Your task to perform on an android device: What's the weather? Image 0: 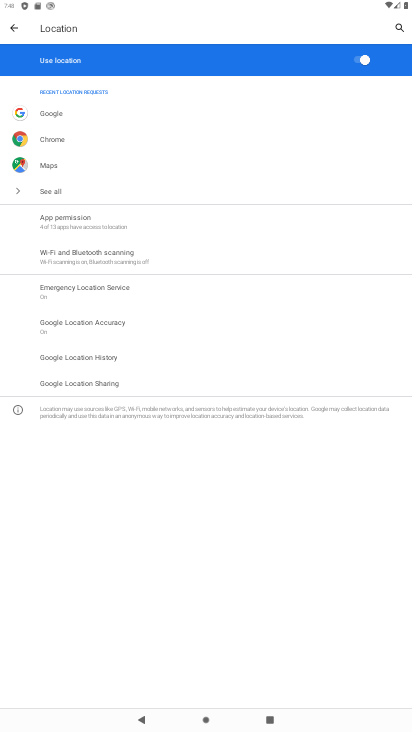
Step 0: press home button
Your task to perform on an android device: What's the weather? Image 1: 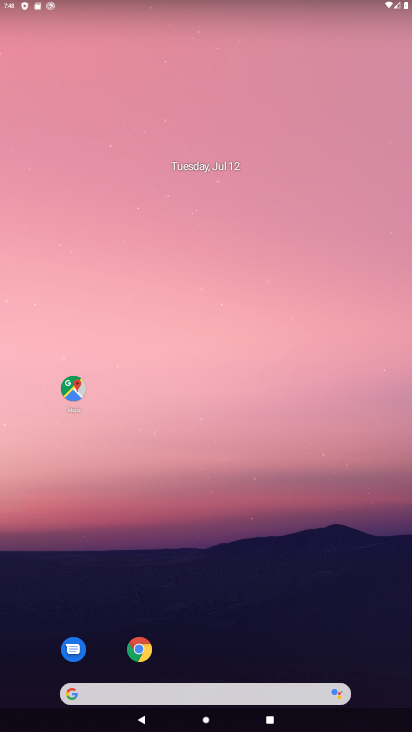
Step 1: drag from (242, 622) to (226, 84)
Your task to perform on an android device: What's the weather? Image 2: 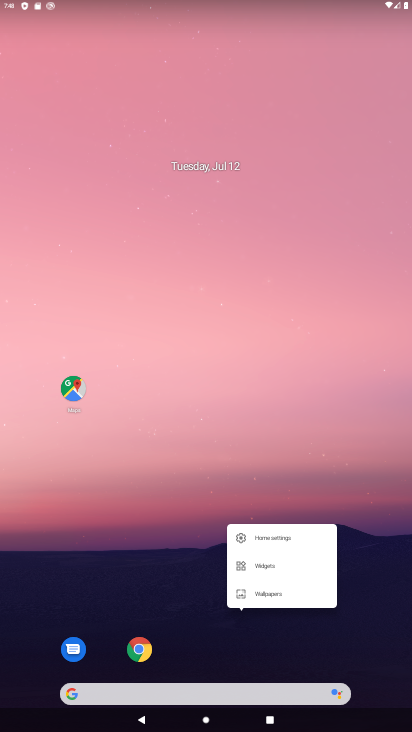
Step 2: click (219, 467)
Your task to perform on an android device: What's the weather? Image 3: 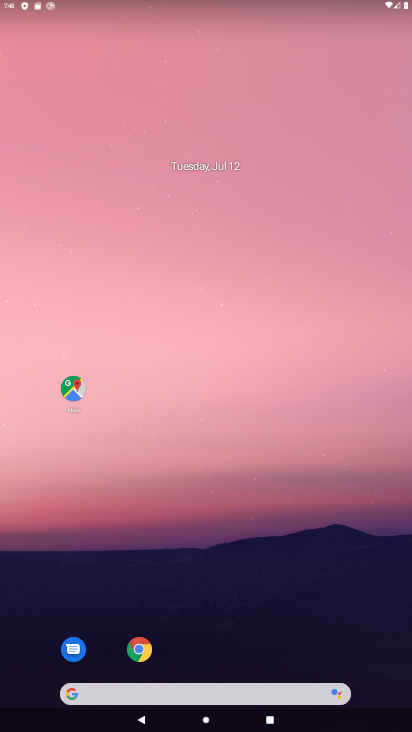
Step 3: drag from (212, 591) to (225, 114)
Your task to perform on an android device: What's the weather? Image 4: 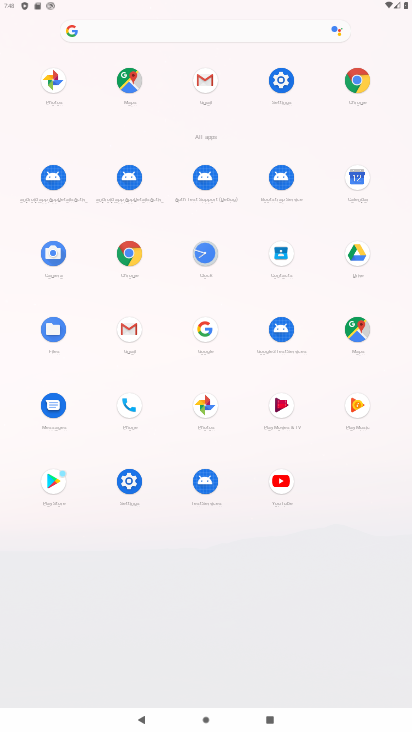
Step 4: click (131, 255)
Your task to perform on an android device: What's the weather? Image 5: 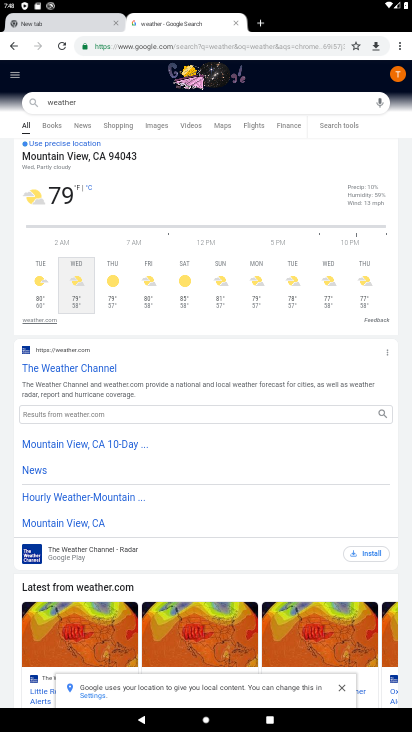
Step 5: click (43, 283)
Your task to perform on an android device: What's the weather? Image 6: 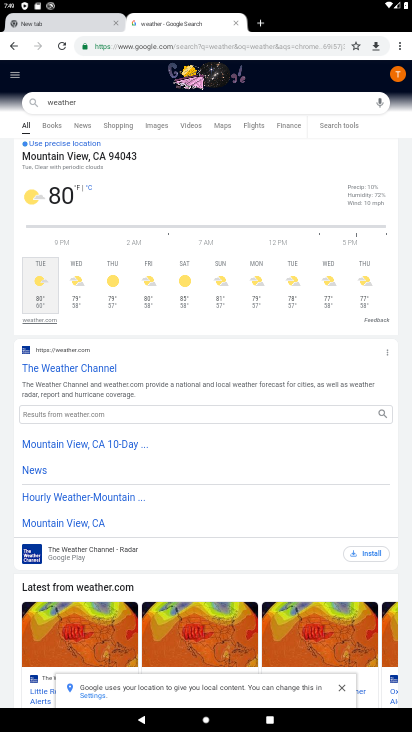
Step 6: task complete